Your task to perform on an android device: Open settings on Google Maps Image 0: 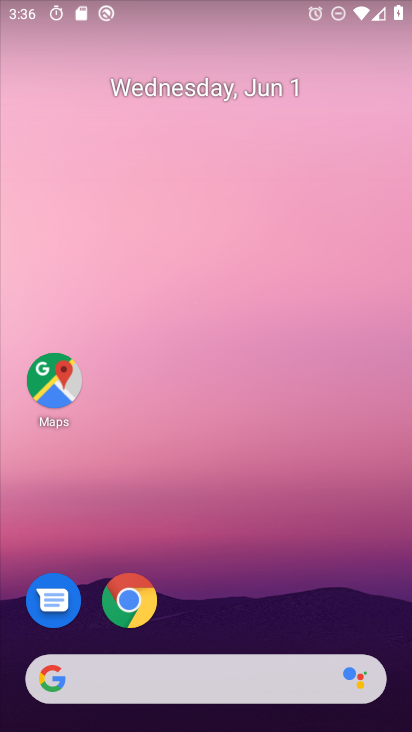
Step 0: click (202, 625)
Your task to perform on an android device: Open settings on Google Maps Image 1: 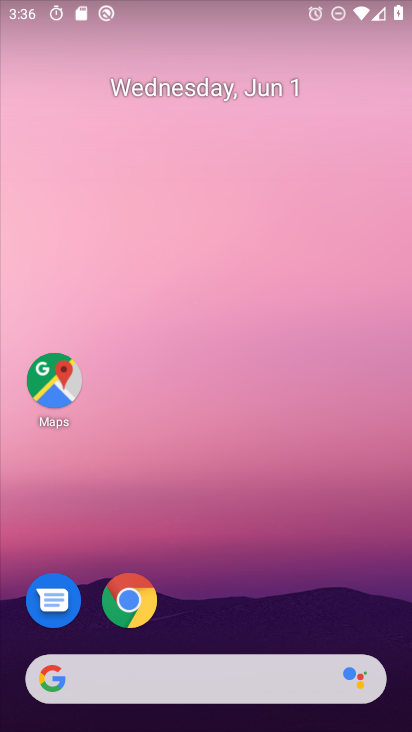
Step 1: click (45, 384)
Your task to perform on an android device: Open settings on Google Maps Image 2: 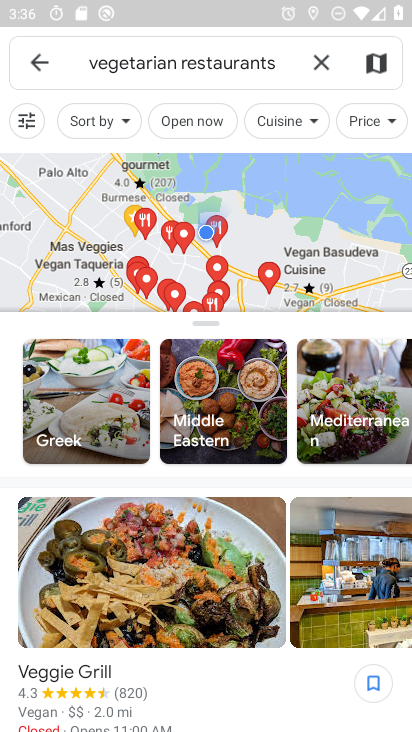
Step 2: click (314, 67)
Your task to perform on an android device: Open settings on Google Maps Image 3: 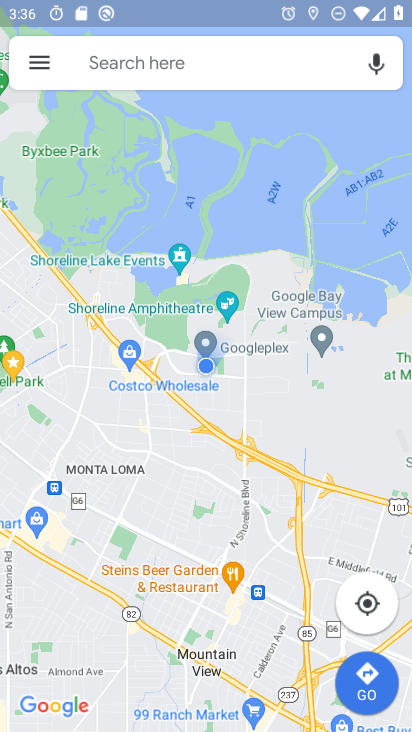
Step 3: click (34, 69)
Your task to perform on an android device: Open settings on Google Maps Image 4: 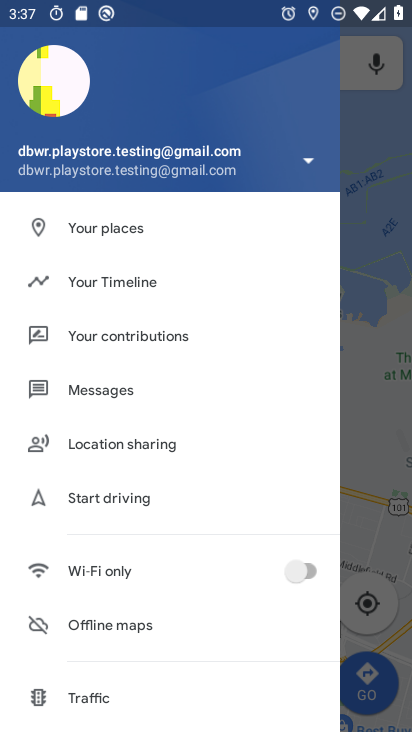
Step 4: drag from (109, 662) to (151, 482)
Your task to perform on an android device: Open settings on Google Maps Image 5: 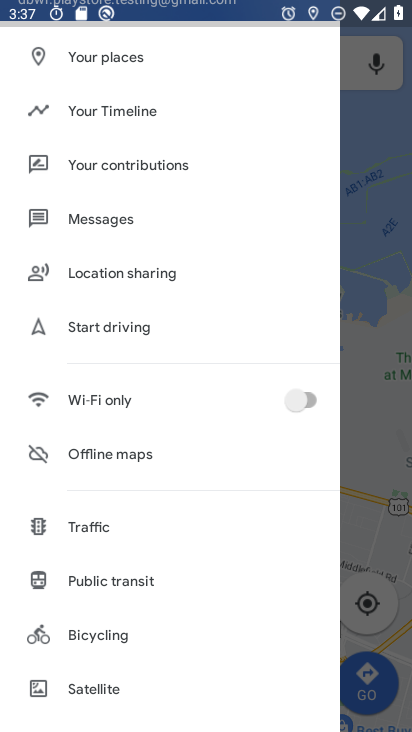
Step 5: drag from (155, 647) to (186, 472)
Your task to perform on an android device: Open settings on Google Maps Image 6: 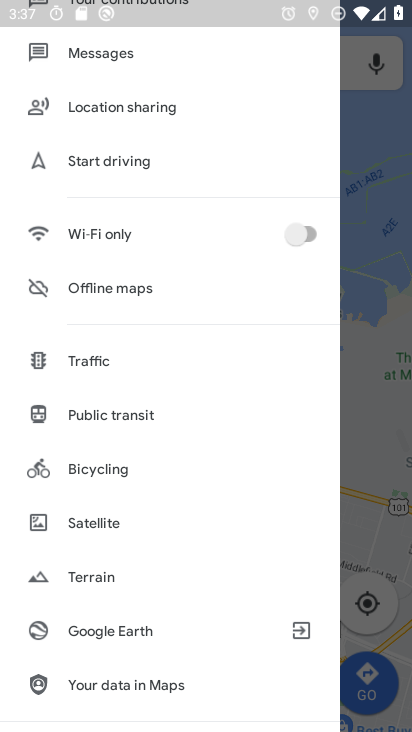
Step 6: drag from (145, 660) to (170, 394)
Your task to perform on an android device: Open settings on Google Maps Image 7: 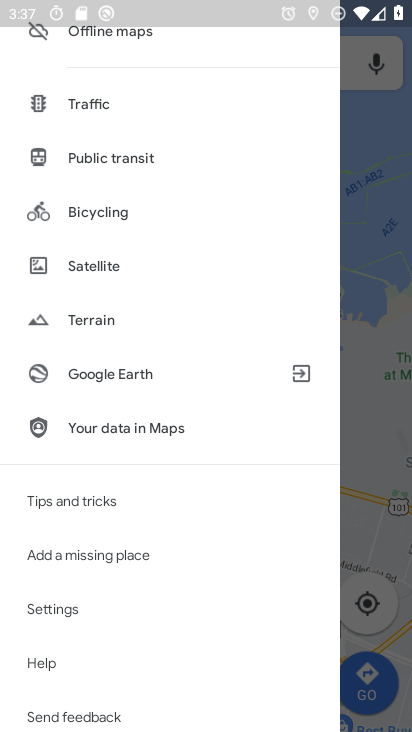
Step 7: click (64, 613)
Your task to perform on an android device: Open settings on Google Maps Image 8: 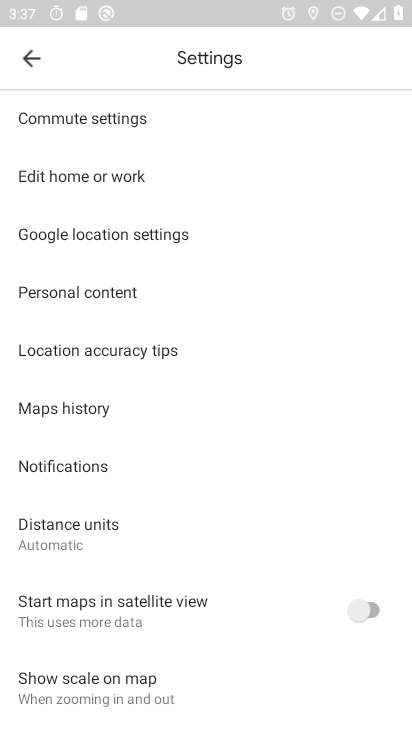
Step 8: task complete